Your task to perform on an android device: turn on improve location accuracy Image 0: 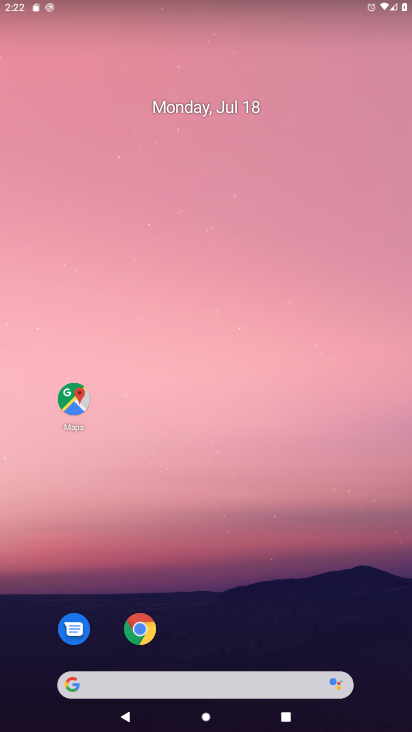
Step 0: drag from (195, 536) to (198, 269)
Your task to perform on an android device: turn on improve location accuracy Image 1: 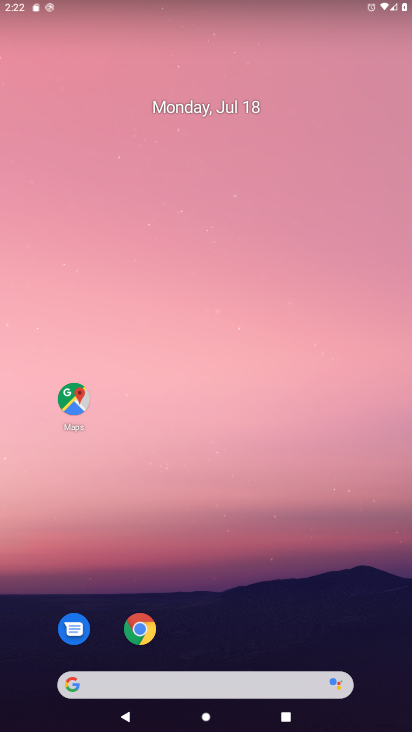
Step 1: drag from (198, 576) to (241, 149)
Your task to perform on an android device: turn on improve location accuracy Image 2: 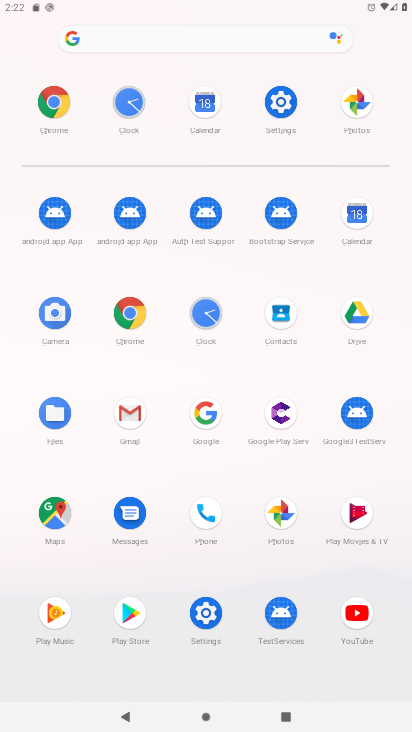
Step 2: click (273, 99)
Your task to perform on an android device: turn on improve location accuracy Image 3: 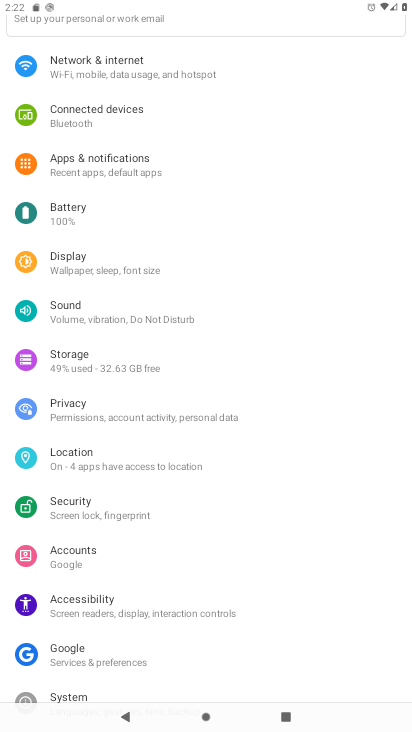
Step 3: click (72, 465)
Your task to perform on an android device: turn on improve location accuracy Image 4: 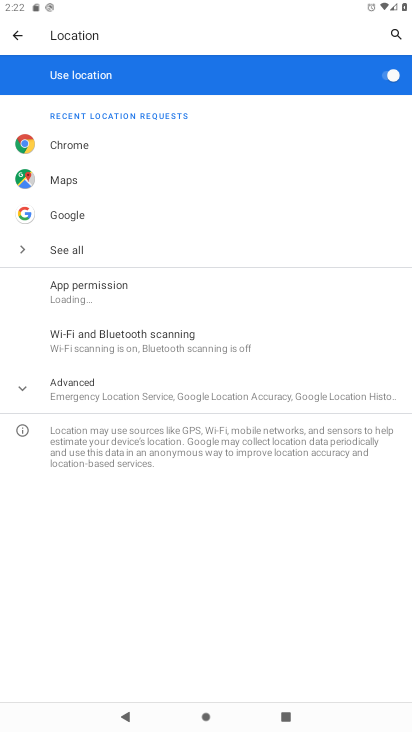
Step 4: click (84, 399)
Your task to perform on an android device: turn on improve location accuracy Image 5: 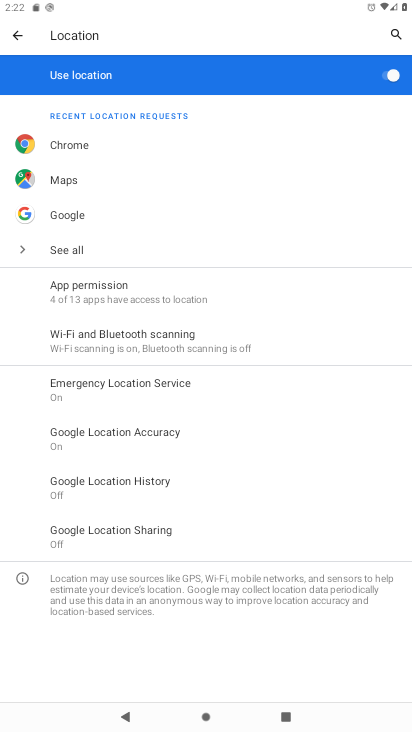
Step 5: click (140, 435)
Your task to perform on an android device: turn on improve location accuracy Image 6: 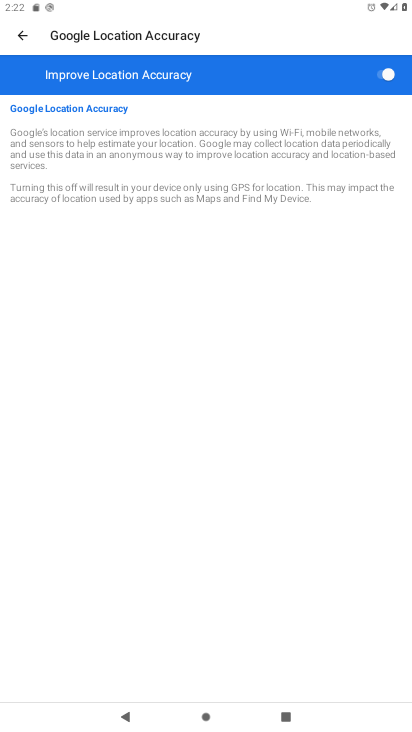
Step 6: task complete